Your task to perform on an android device: set the timer Image 0: 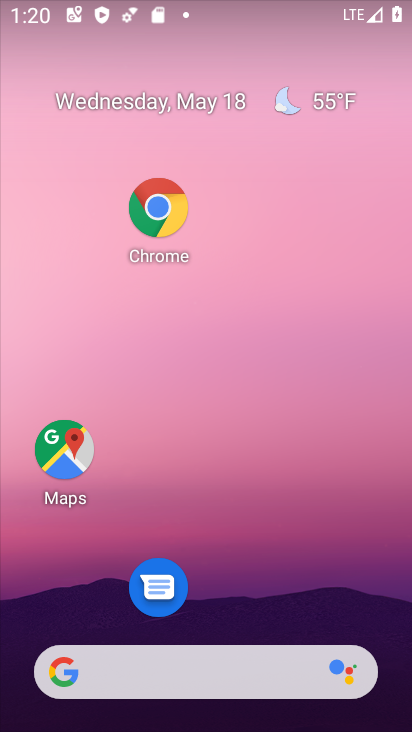
Step 0: drag from (234, 617) to (248, 8)
Your task to perform on an android device: set the timer Image 1: 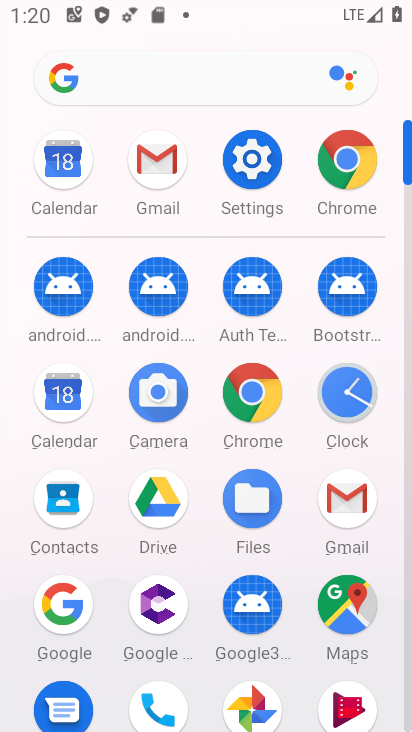
Step 1: click (352, 401)
Your task to perform on an android device: set the timer Image 2: 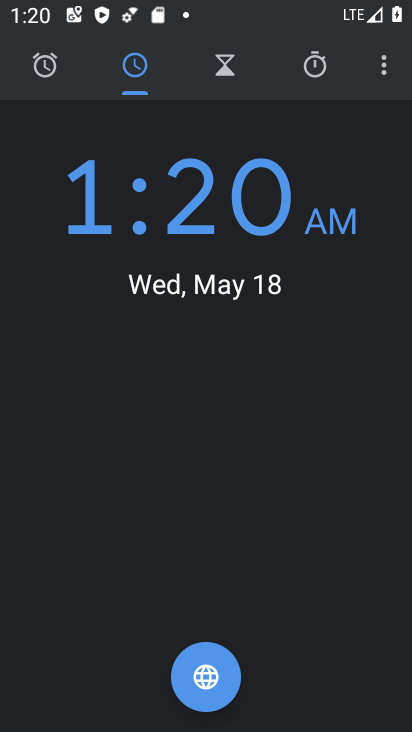
Step 2: click (227, 76)
Your task to perform on an android device: set the timer Image 3: 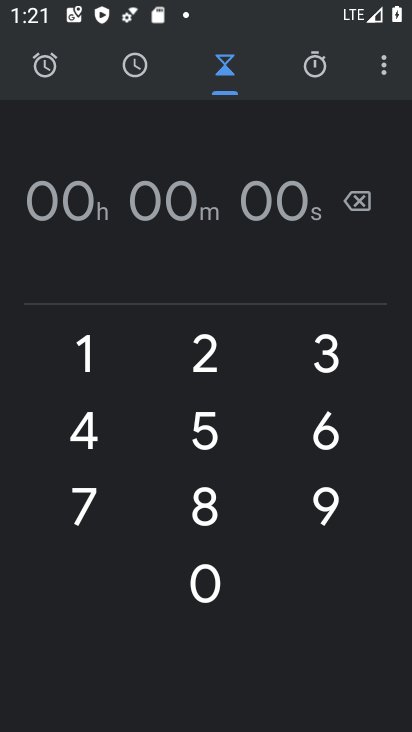
Step 3: click (208, 348)
Your task to perform on an android device: set the timer Image 4: 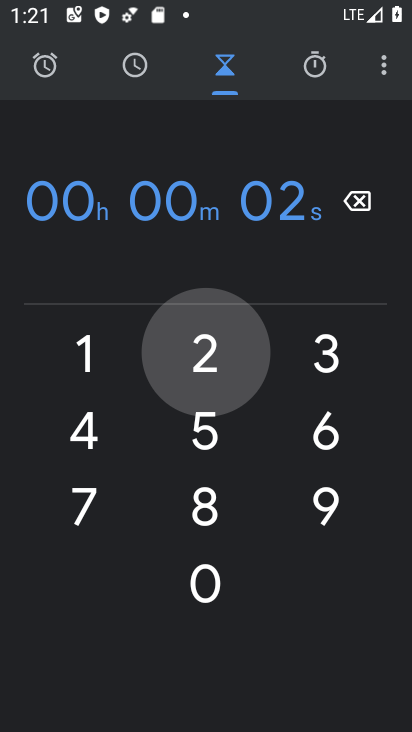
Step 4: click (210, 573)
Your task to perform on an android device: set the timer Image 5: 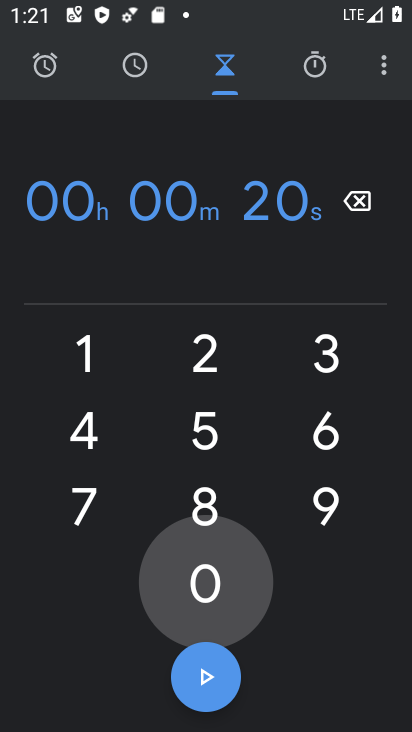
Step 5: click (206, 374)
Your task to perform on an android device: set the timer Image 6: 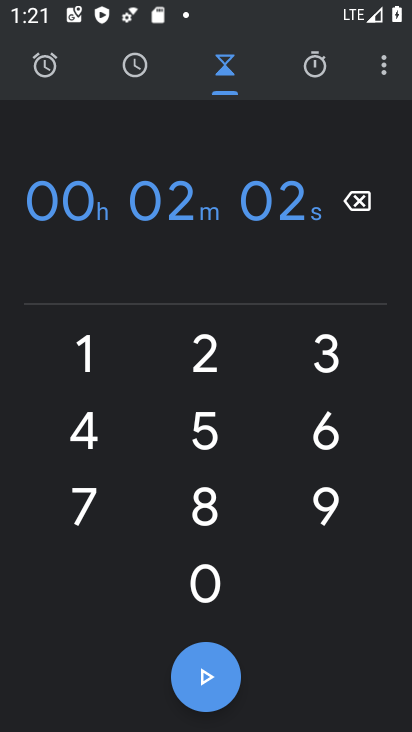
Step 6: click (203, 576)
Your task to perform on an android device: set the timer Image 7: 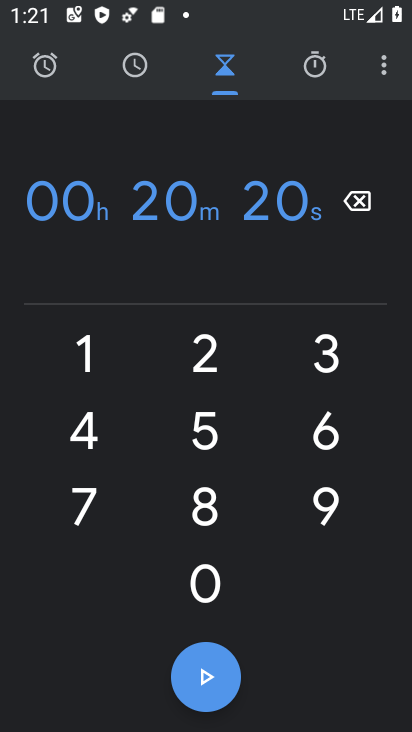
Step 7: click (213, 669)
Your task to perform on an android device: set the timer Image 8: 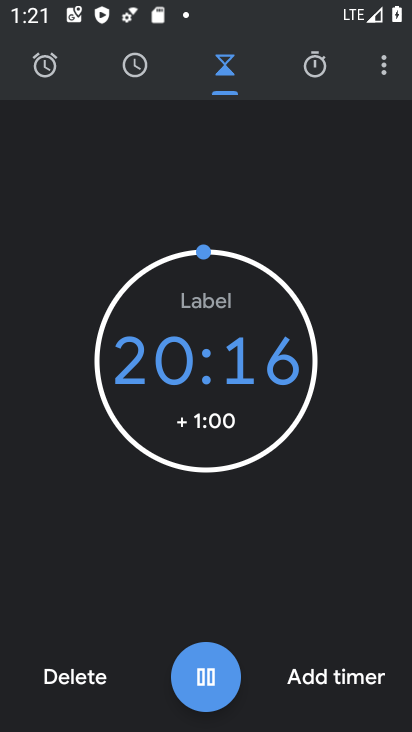
Step 8: task complete